Your task to perform on an android device: find which apps use the phone's location Image 0: 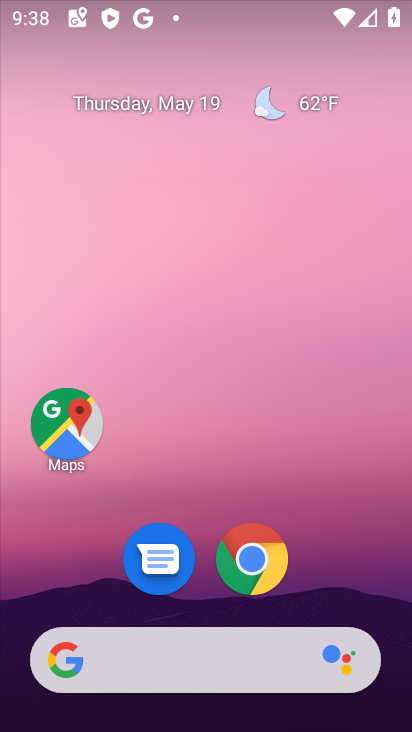
Step 0: drag from (358, 556) to (277, 130)
Your task to perform on an android device: find which apps use the phone's location Image 1: 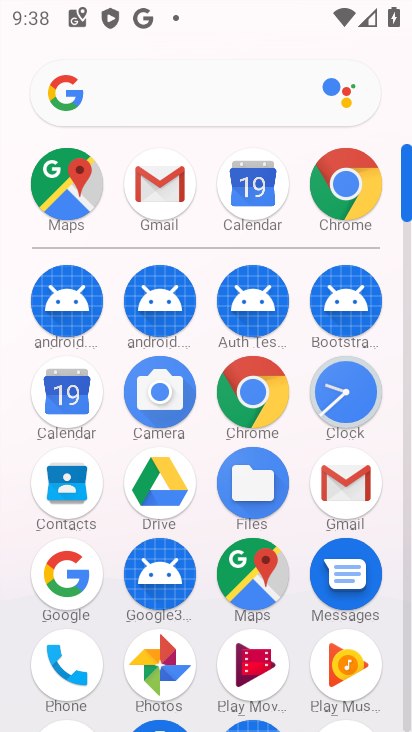
Step 1: drag from (323, 522) to (301, 231)
Your task to perform on an android device: find which apps use the phone's location Image 2: 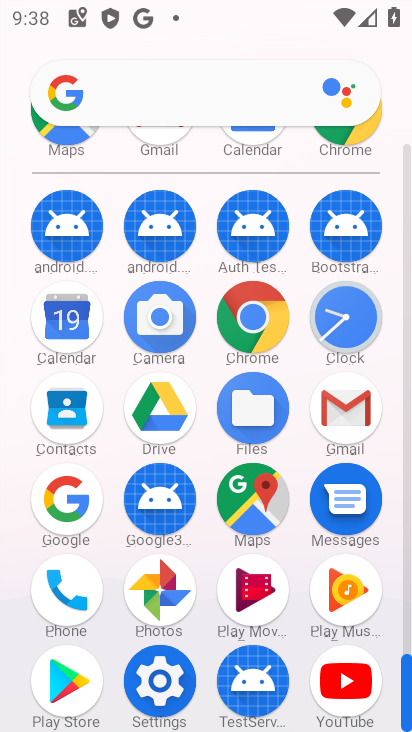
Step 2: click (163, 676)
Your task to perform on an android device: find which apps use the phone's location Image 3: 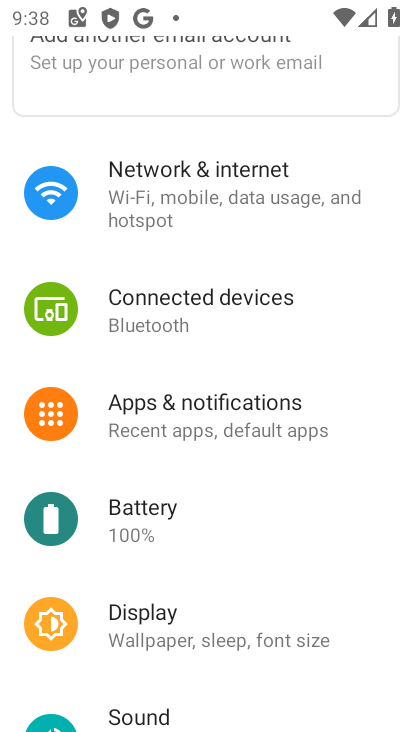
Step 3: drag from (163, 637) to (92, 146)
Your task to perform on an android device: find which apps use the phone's location Image 4: 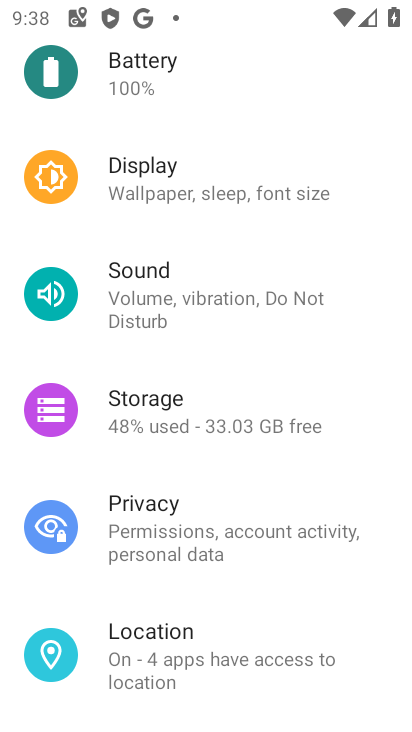
Step 4: click (251, 660)
Your task to perform on an android device: find which apps use the phone's location Image 5: 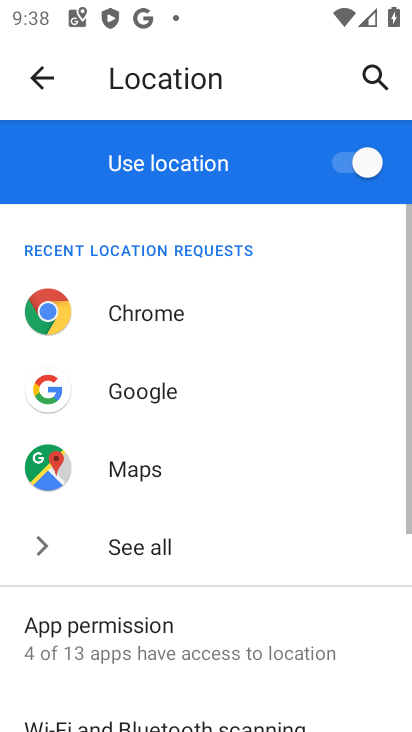
Step 5: drag from (252, 655) to (240, 152)
Your task to perform on an android device: find which apps use the phone's location Image 6: 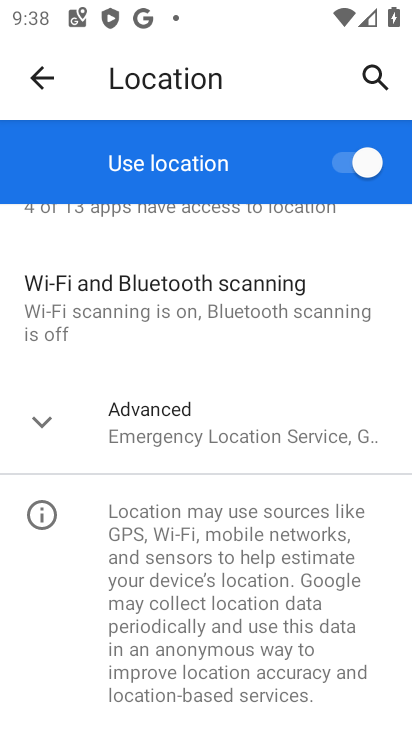
Step 6: drag from (204, 288) to (246, 701)
Your task to perform on an android device: find which apps use the phone's location Image 7: 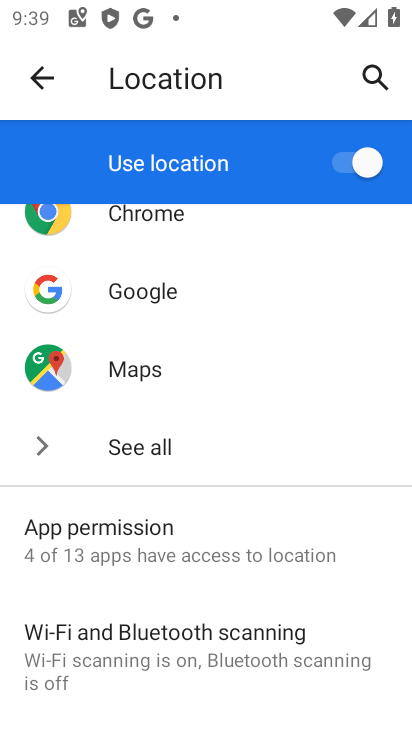
Step 7: click (198, 557)
Your task to perform on an android device: find which apps use the phone's location Image 8: 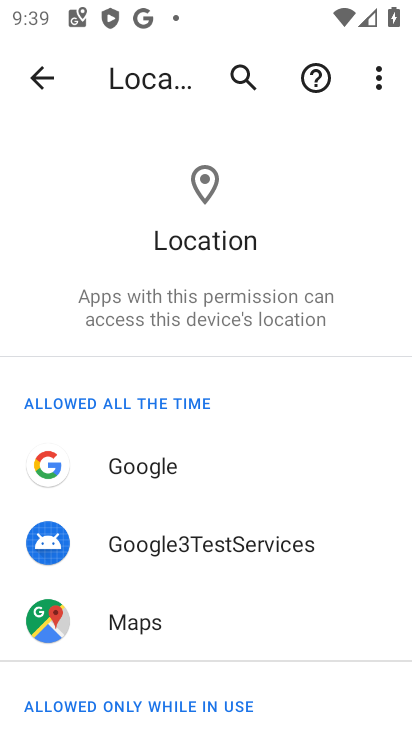
Step 8: task complete